Your task to perform on an android device: Open Chrome and go to the settings page Image 0: 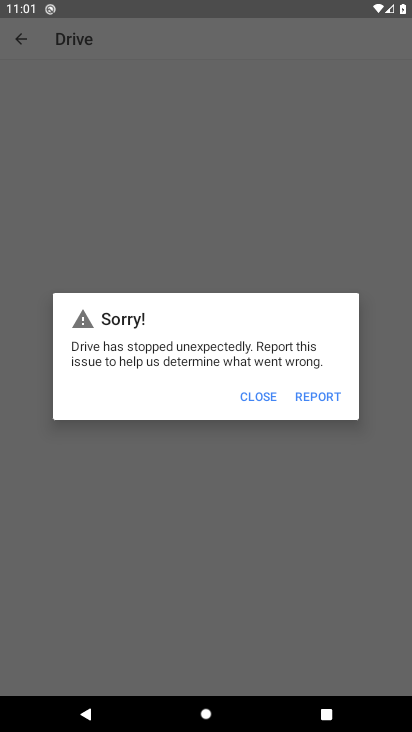
Step 0: press home button
Your task to perform on an android device: Open Chrome and go to the settings page Image 1: 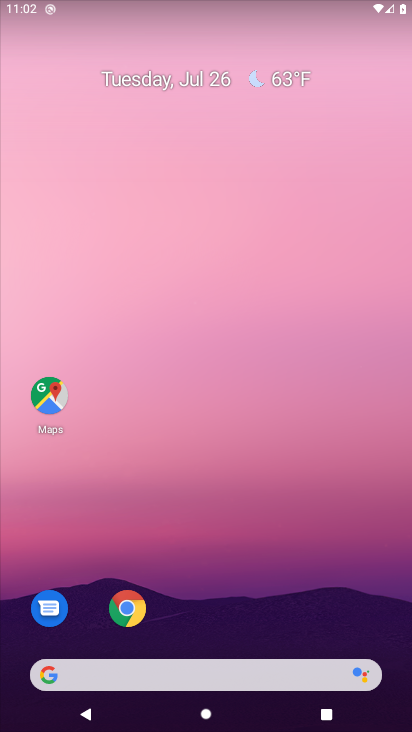
Step 1: click (120, 607)
Your task to perform on an android device: Open Chrome and go to the settings page Image 2: 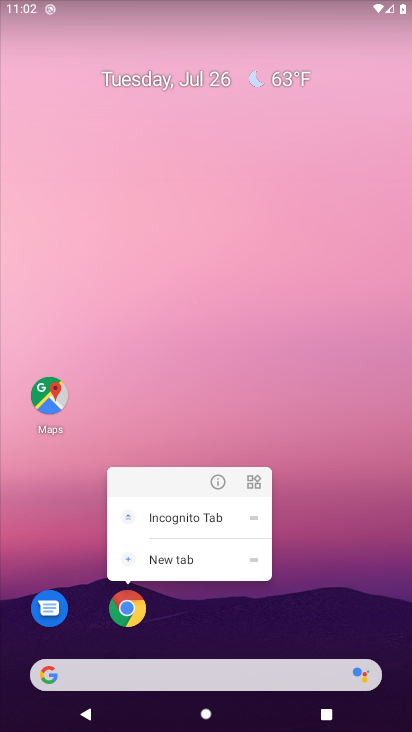
Step 2: click (120, 607)
Your task to perform on an android device: Open Chrome and go to the settings page Image 3: 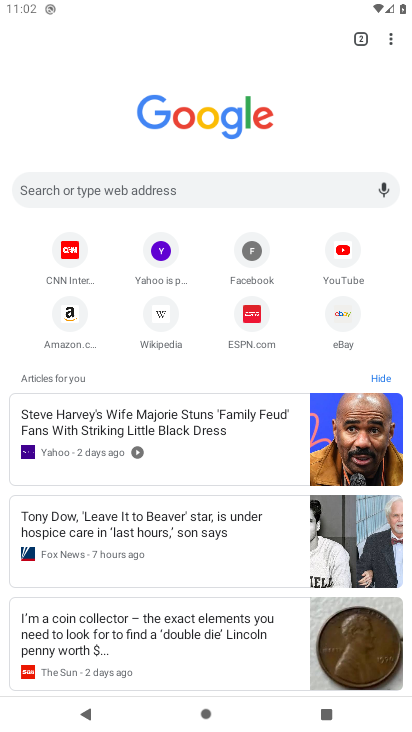
Step 3: click (392, 34)
Your task to perform on an android device: Open Chrome and go to the settings page Image 4: 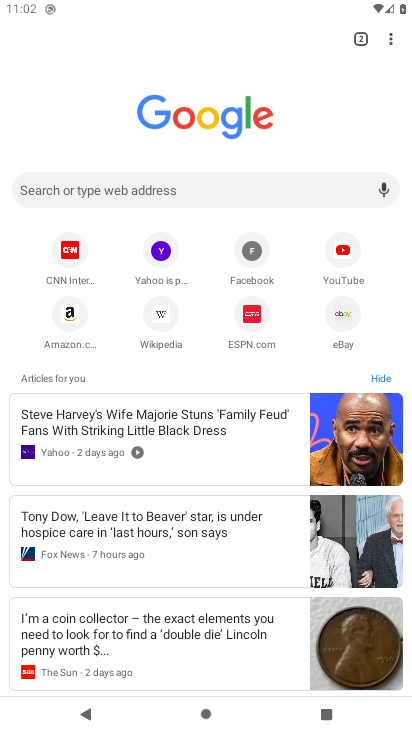
Step 4: task complete